Your task to perform on an android device: change your default location settings in chrome Image 0: 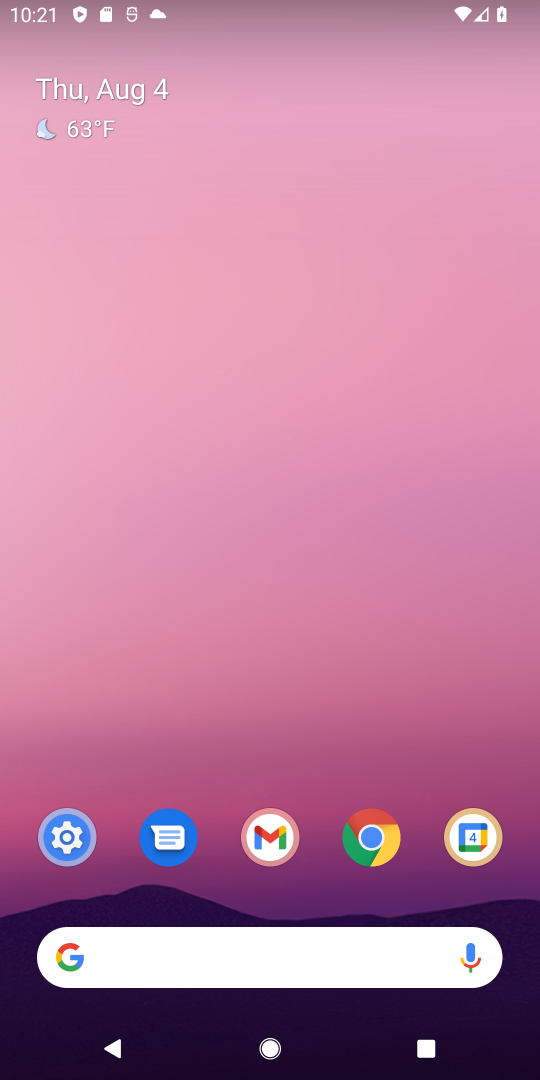
Step 0: click (367, 826)
Your task to perform on an android device: change your default location settings in chrome Image 1: 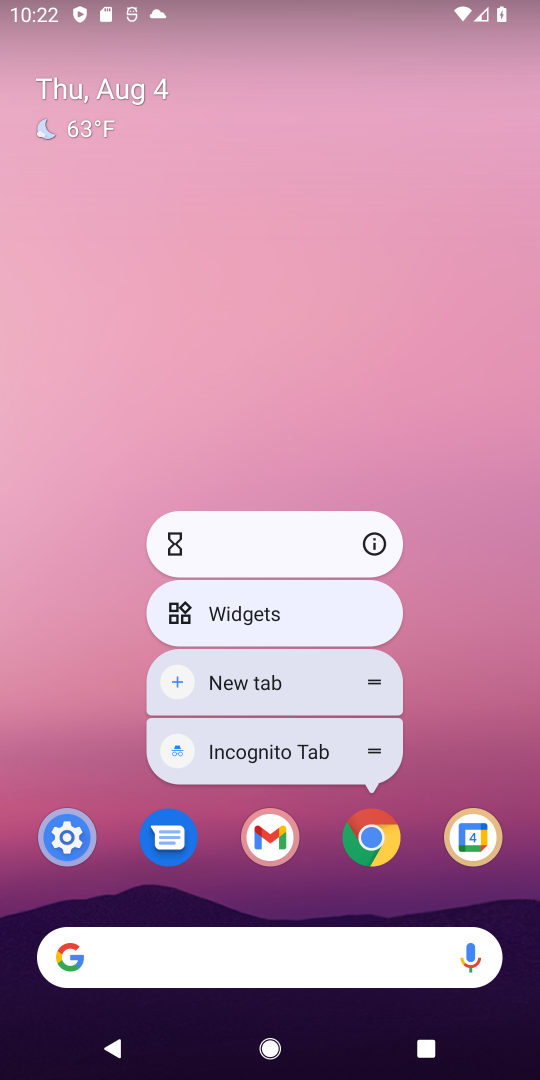
Step 1: click (426, 795)
Your task to perform on an android device: change your default location settings in chrome Image 2: 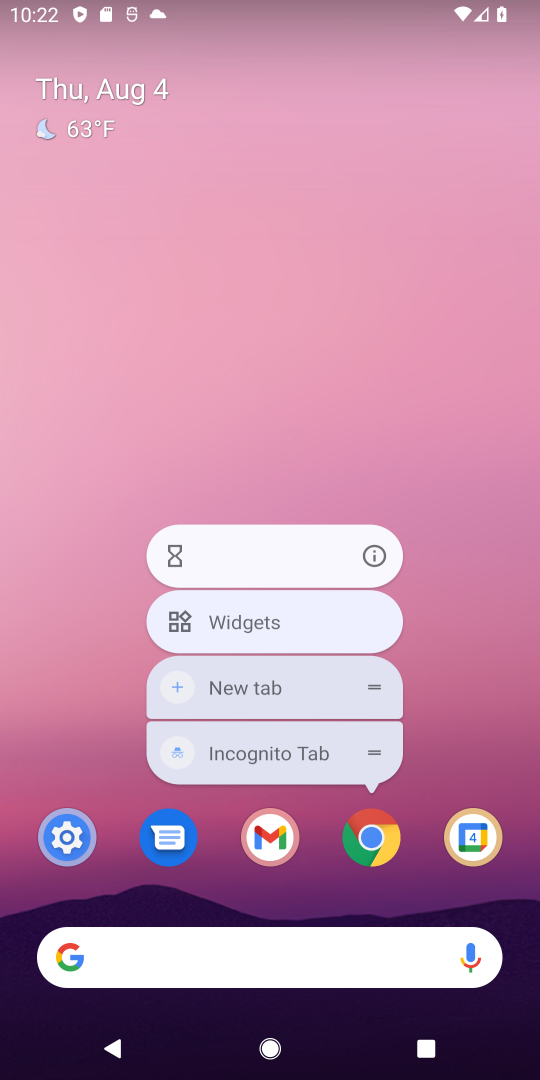
Step 2: drag from (426, 864) to (451, 391)
Your task to perform on an android device: change your default location settings in chrome Image 3: 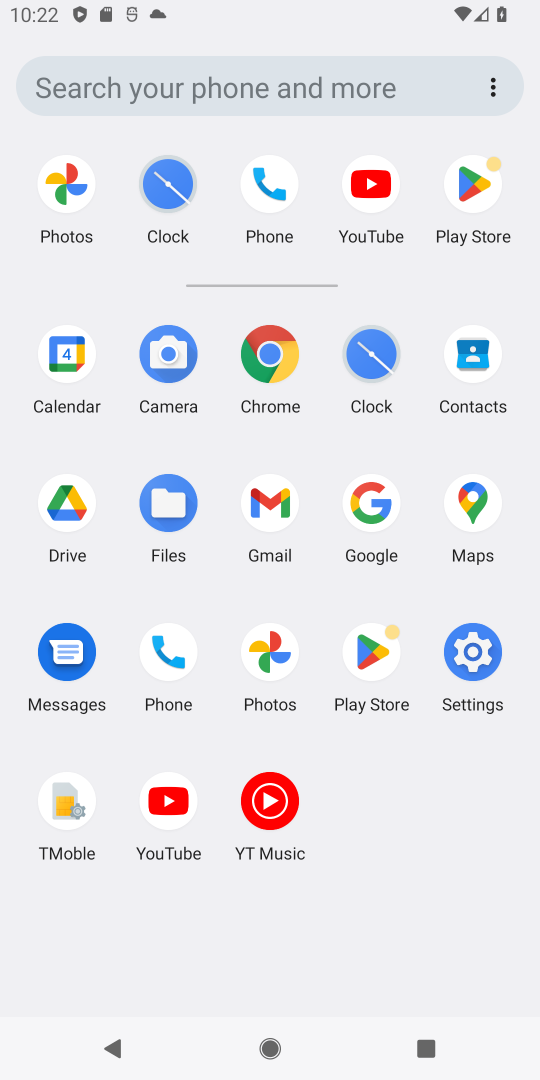
Step 3: click (261, 350)
Your task to perform on an android device: change your default location settings in chrome Image 4: 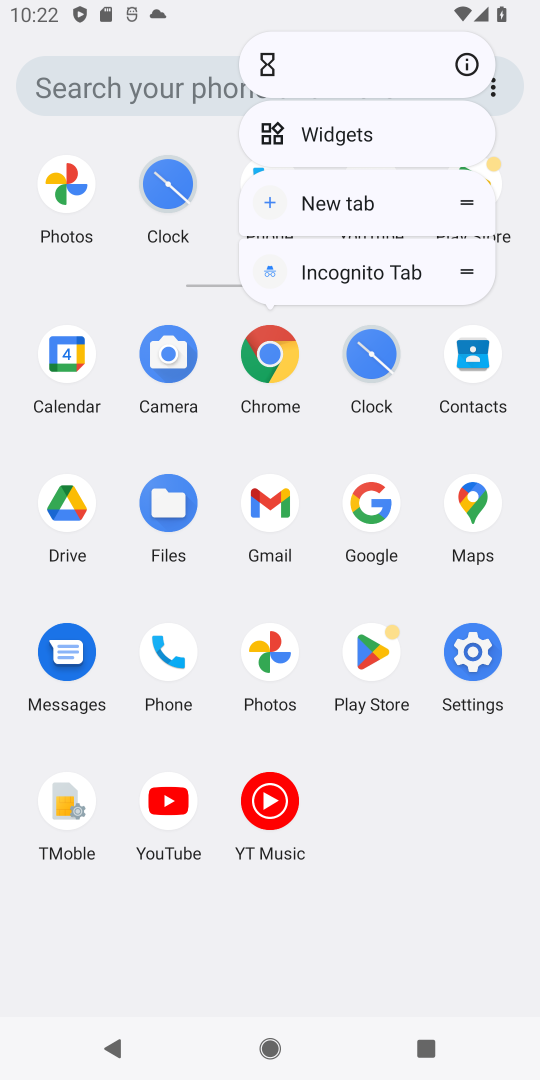
Step 4: click (265, 337)
Your task to perform on an android device: change your default location settings in chrome Image 5: 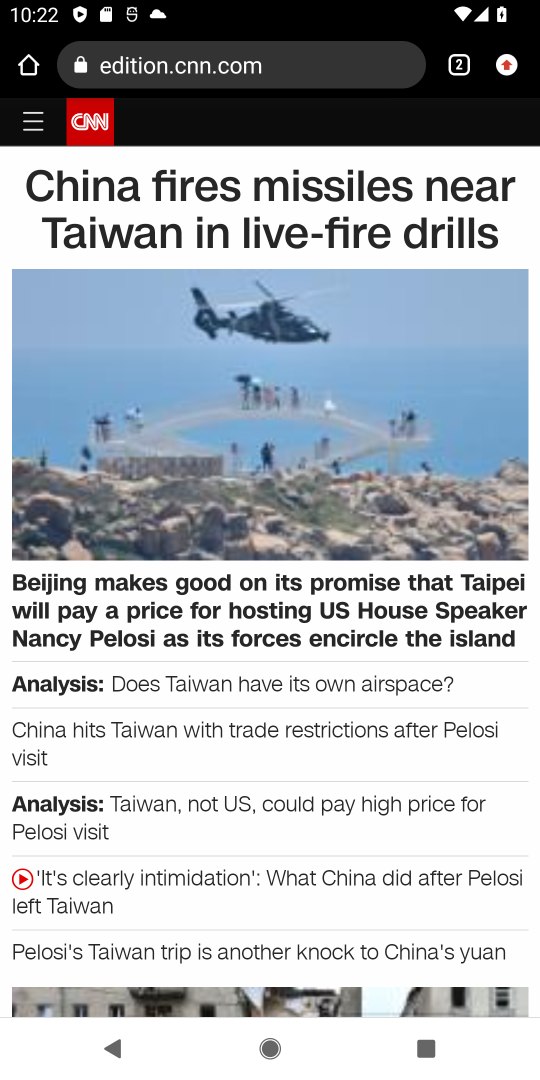
Step 5: click (504, 65)
Your task to perform on an android device: change your default location settings in chrome Image 6: 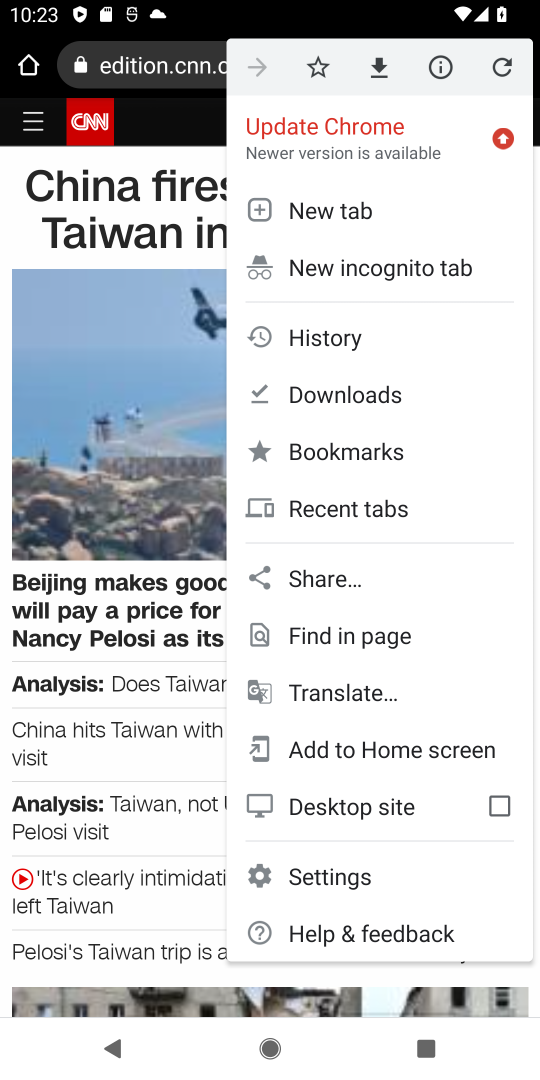
Step 6: click (354, 868)
Your task to perform on an android device: change your default location settings in chrome Image 7: 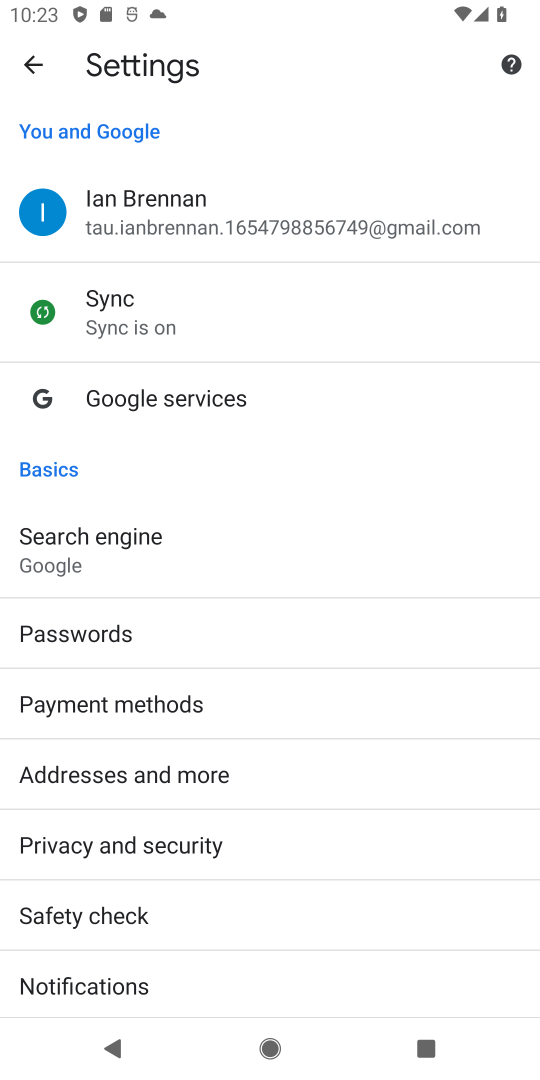
Step 7: drag from (259, 948) to (300, 192)
Your task to perform on an android device: change your default location settings in chrome Image 8: 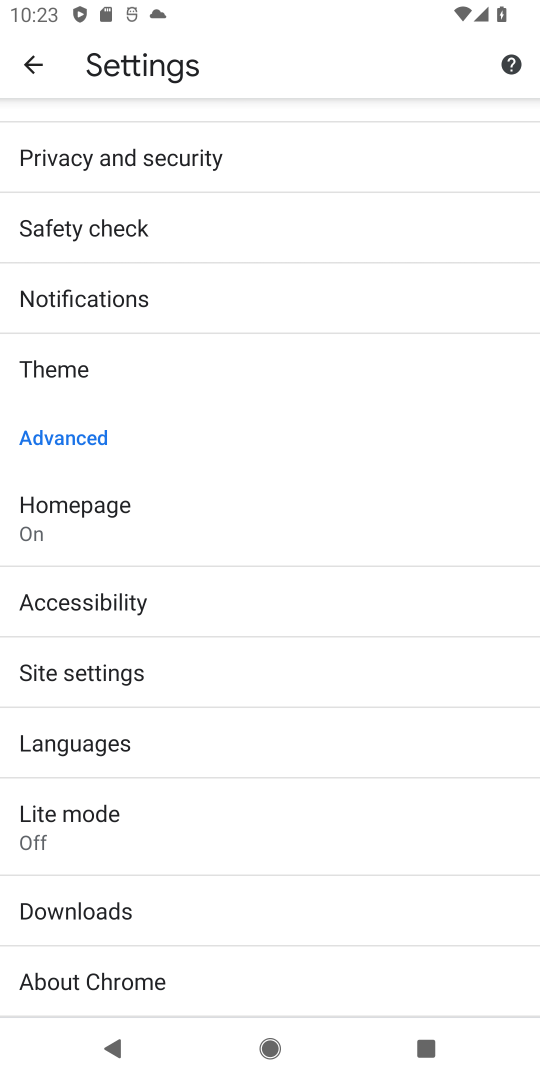
Step 8: click (194, 682)
Your task to perform on an android device: change your default location settings in chrome Image 9: 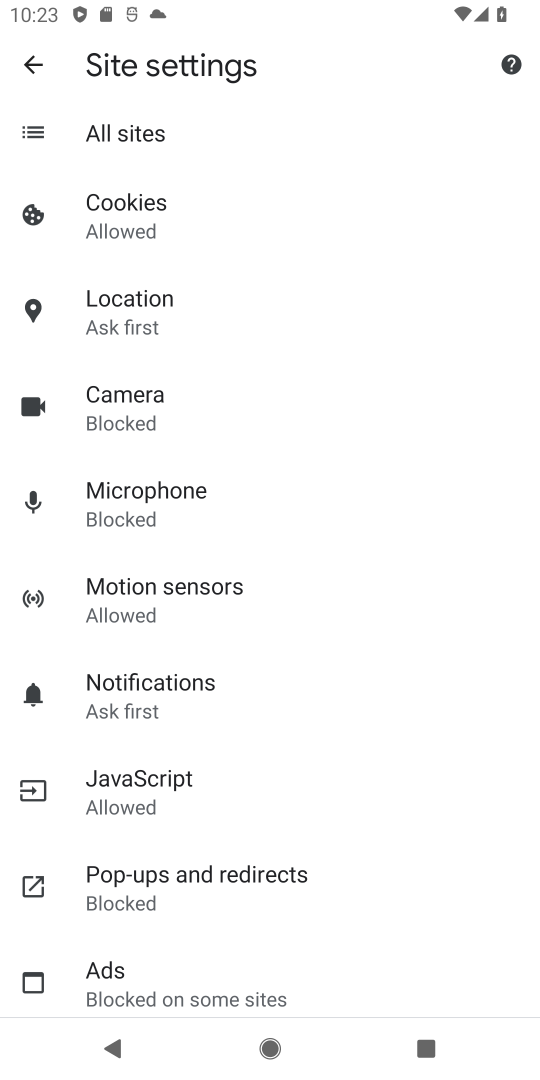
Step 9: click (180, 303)
Your task to perform on an android device: change your default location settings in chrome Image 10: 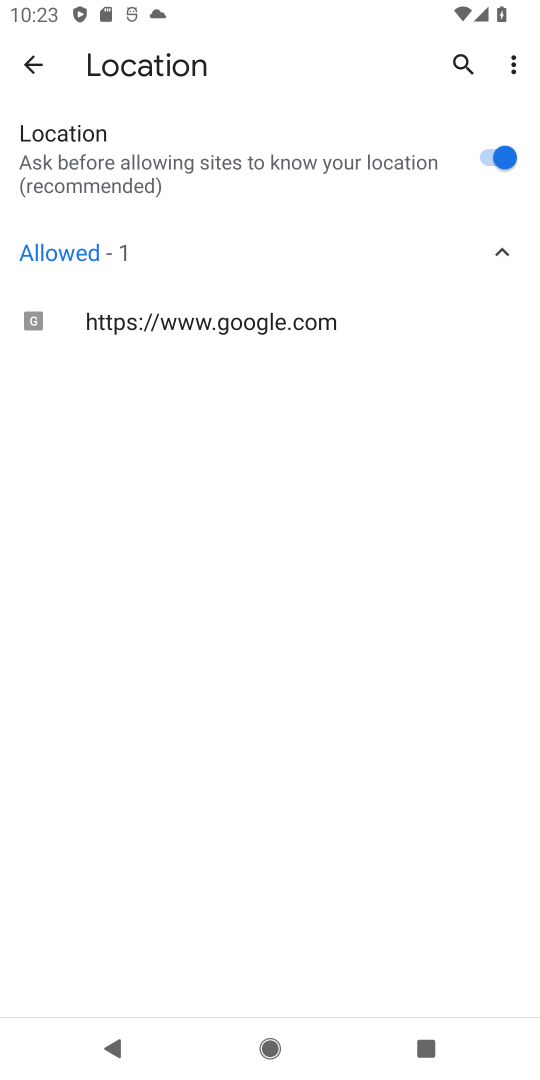
Step 10: click (490, 146)
Your task to perform on an android device: change your default location settings in chrome Image 11: 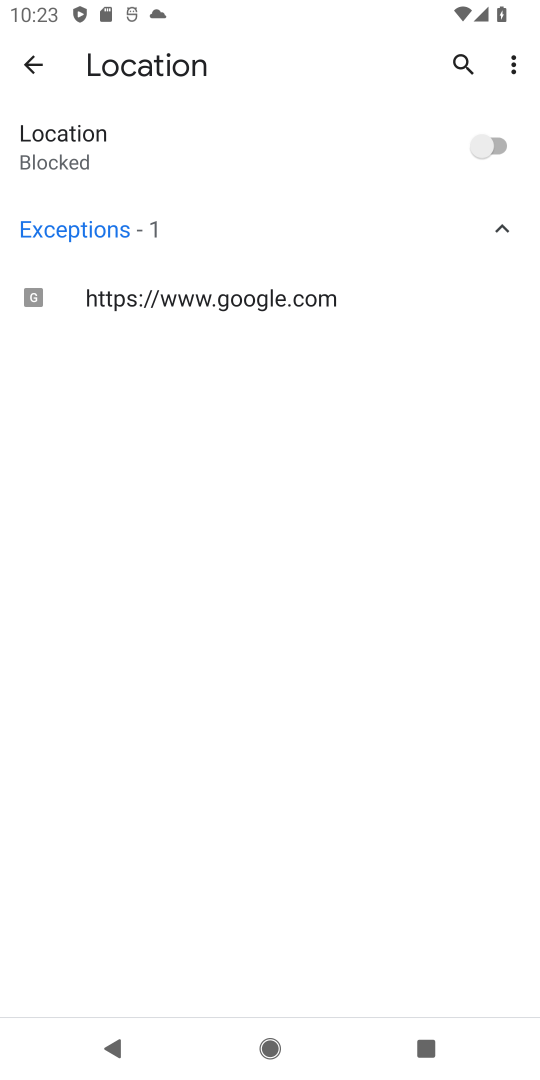
Step 11: task complete